Your task to perform on an android device: Go to Android settings Image 0: 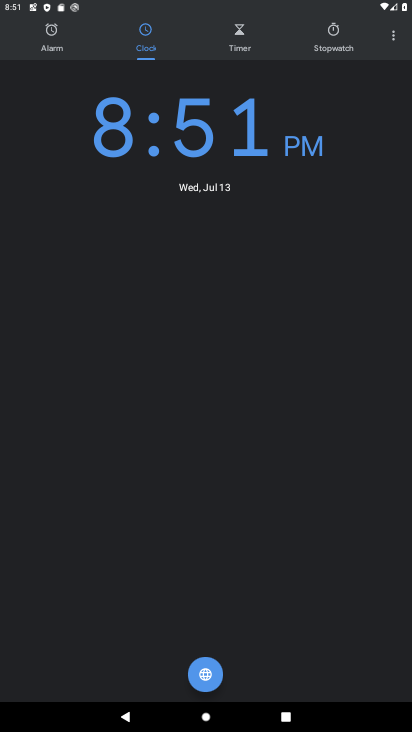
Step 0: press home button
Your task to perform on an android device: Go to Android settings Image 1: 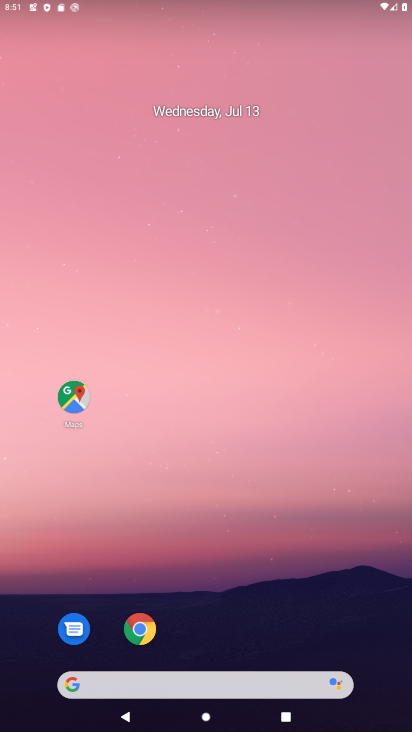
Step 1: drag from (283, 627) to (339, 78)
Your task to perform on an android device: Go to Android settings Image 2: 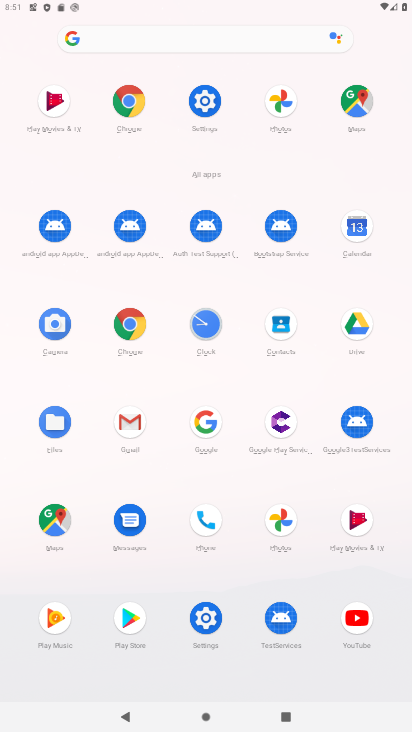
Step 2: click (217, 618)
Your task to perform on an android device: Go to Android settings Image 3: 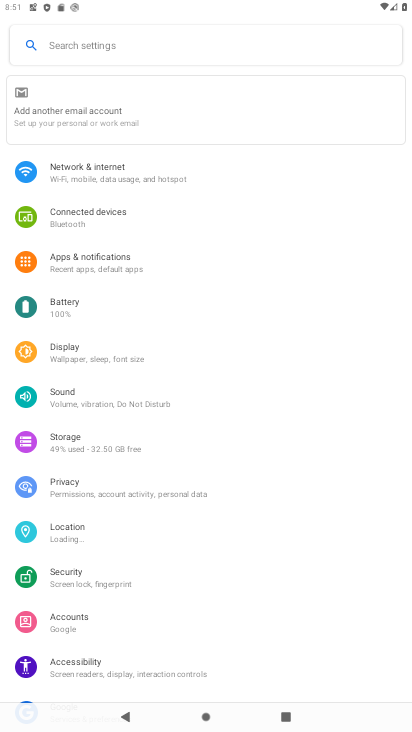
Step 3: drag from (161, 644) to (238, 131)
Your task to perform on an android device: Go to Android settings Image 4: 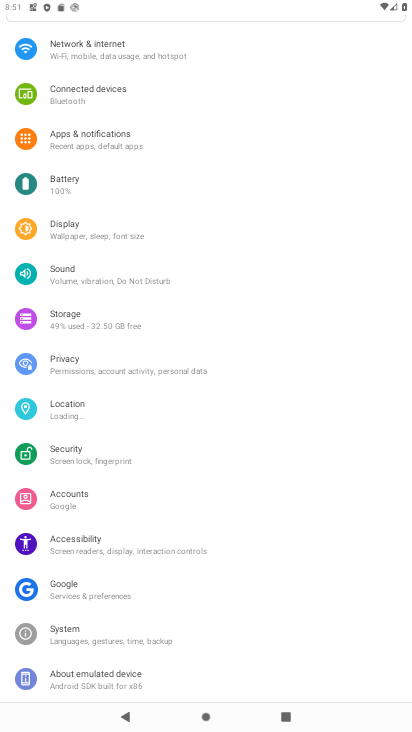
Step 4: click (87, 679)
Your task to perform on an android device: Go to Android settings Image 5: 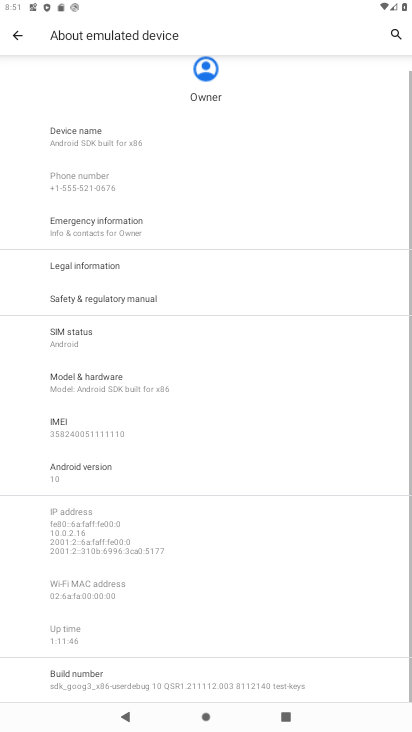
Step 5: drag from (162, 589) to (192, 276)
Your task to perform on an android device: Go to Android settings Image 6: 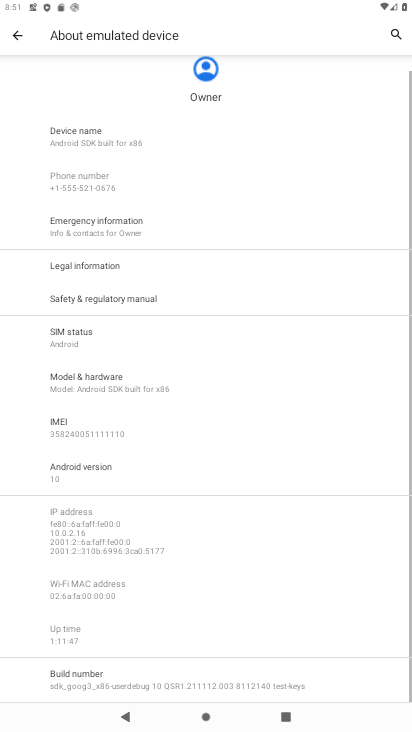
Step 6: click (84, 465)
Your task to perform on an android device: Go to Android settings Image 7: 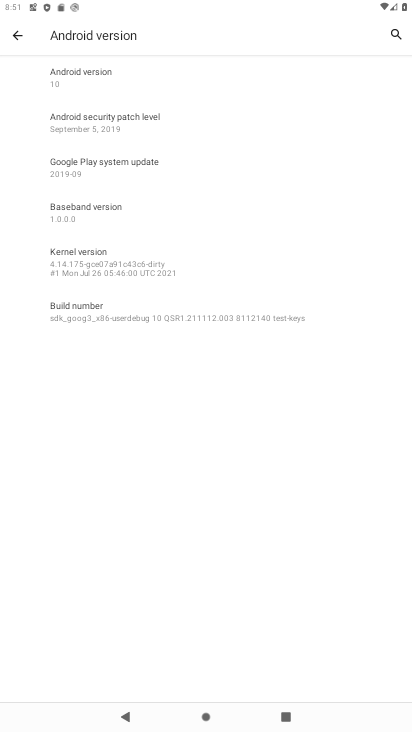
Step 7: task complete